Your task to perform on an android device: turn on data saver in the chrome app Image 0: 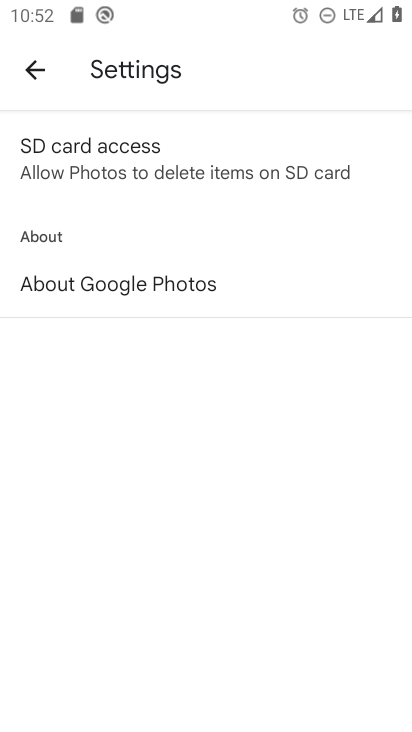
Step 0: press home button
Your task to perform on an android device: turn on data saver in the chrome app Image 1: 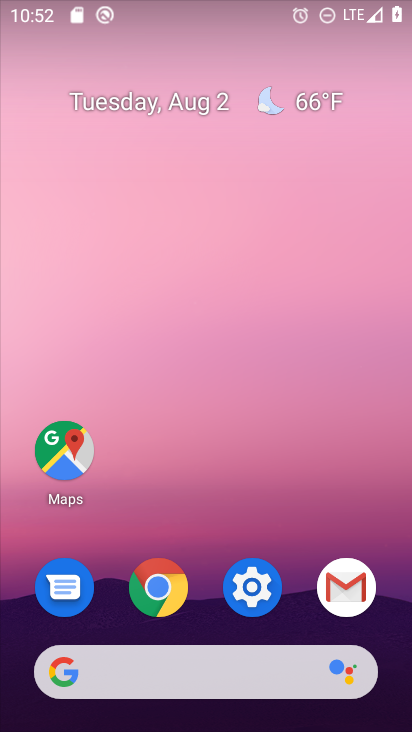
Step 1: click (163, 582)
Your task to perform on an android device: turn on data saver in the chrome app Image 2: 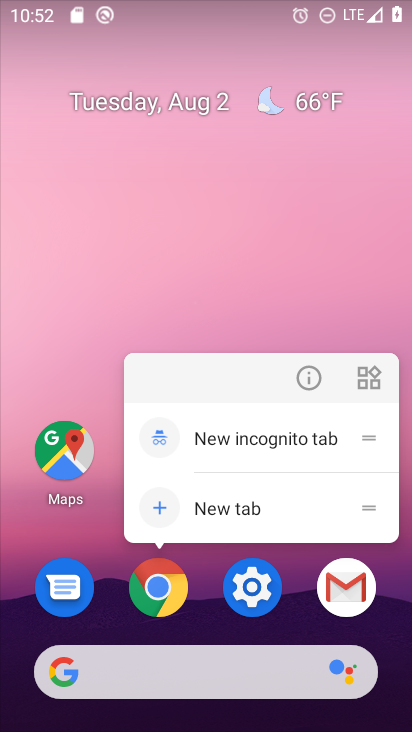
Step 2: click (155, 593)
Your task to perform on an android device: turn on data saver in the chrome app Image 3: 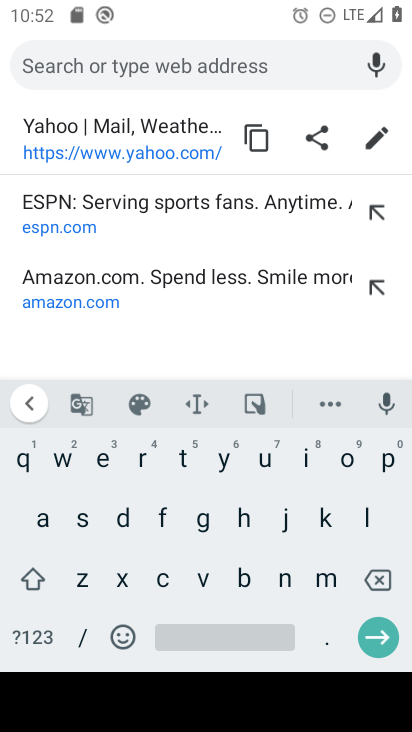
Step 3: press back button
Your task to perform on an android device: turn on data saver in the chrome app Image 4: 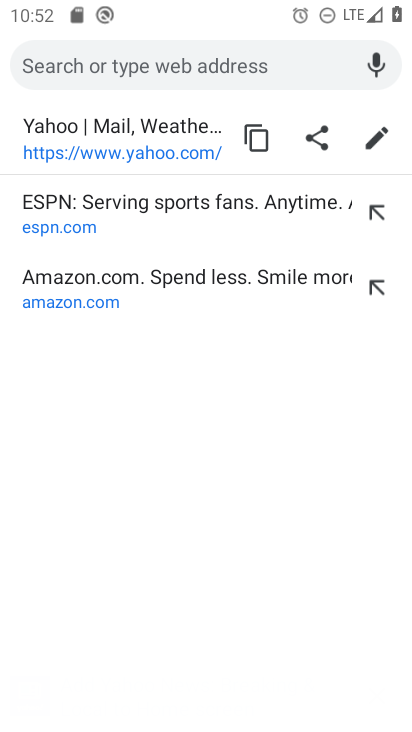
Step 4: press back button
Your task to perform on an android device: turn on data saver in the chrome app Image 5: 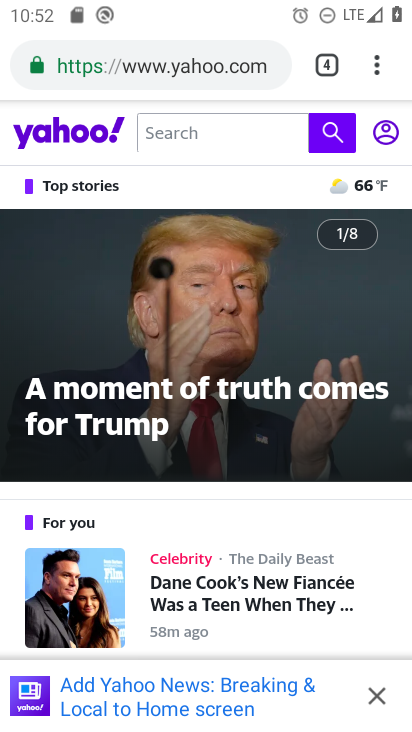
Step 5: click (376, 67)
Your task to perform on an android device: turn on data saver in the chrome app Image 6: 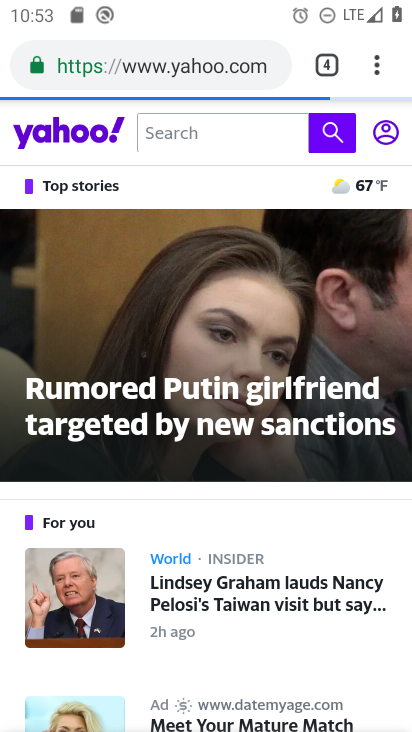
Step 6: click (373, 73)
Your task to perform on an android device: turn on data saver in the chrome app Image 7: 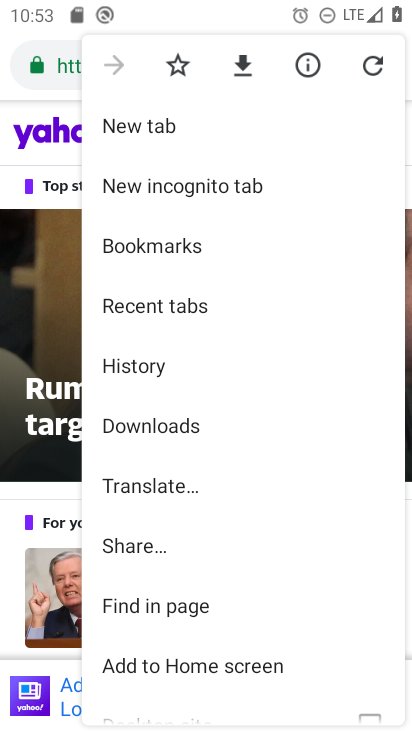
Step 7: drag from (163, 692) to (158, 365)
Your task to perform on an android device: turn on data saver in the chrome app Image 8: 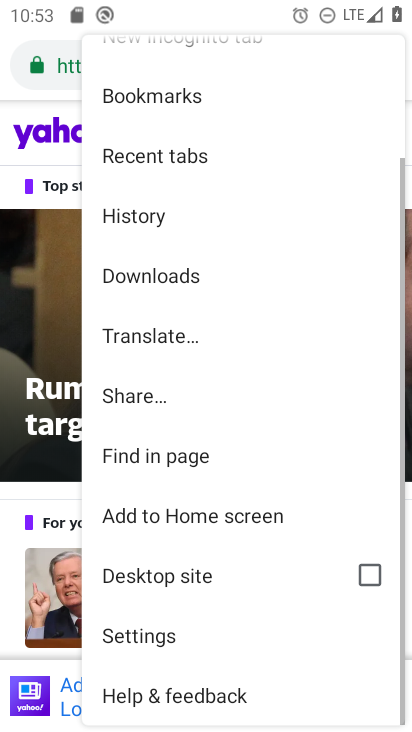
Step 8: click (173, 633)
Your task to perform on an android device: turn on data saver in the chrome app Image 9: 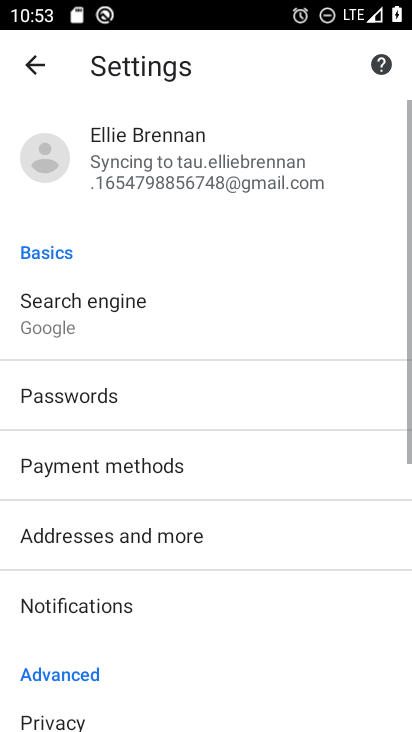
Step 9: drag from (148, 692) to (166, 271)
Your task to perform on an android device: turn on data saver in the chrome app Image 10: 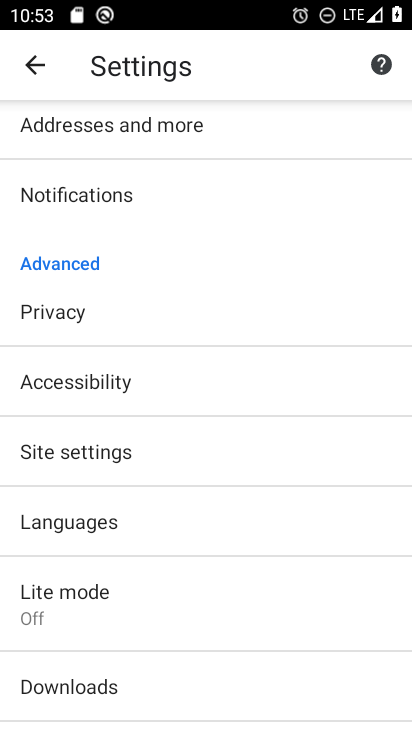
Step 10: drag from (144, 637) to (160, 455)
Your task to perform on an android device: turn on data saver in the chrome app Image 11: 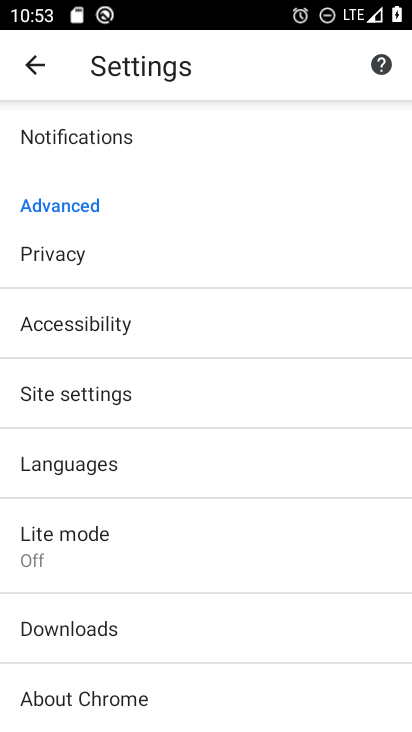
Step 11: click (80, 558)
Your task to perform on an android device: turn on data saver in the chrome app Image 12: 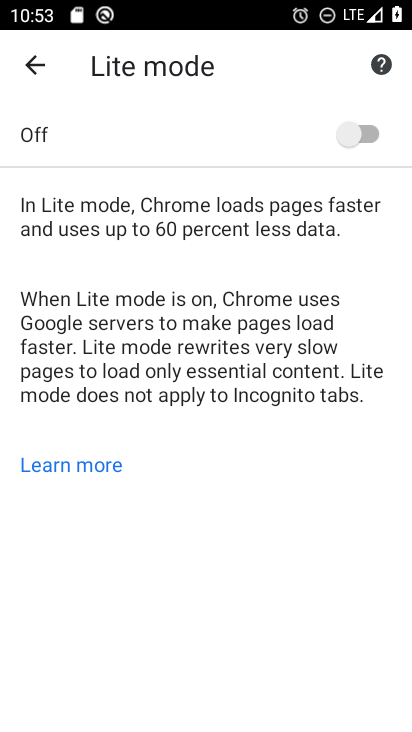
Step 12: click (346, 142)
Your task to perform on an android device: turn on data saver in the chrome app Image 13: 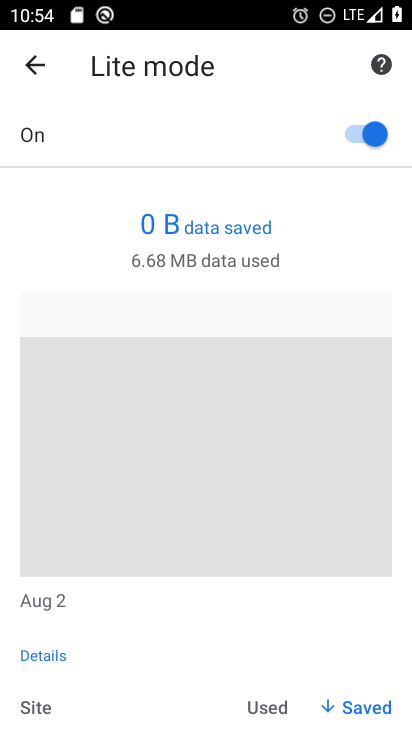
Step 13: task complete